Your task to perform on an android device: turn off notifications settings in the gmail app Image 0: 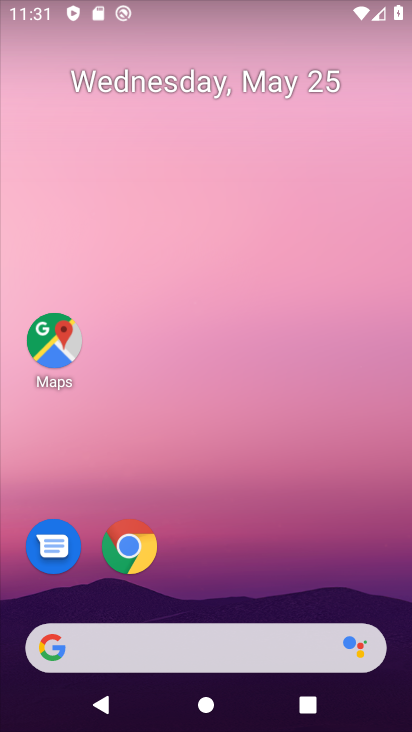
Step 0: drag from (212, 425) to (247, 9)
Your task to perform on an android device: turn off notifications settings in the gmail app Image 1: 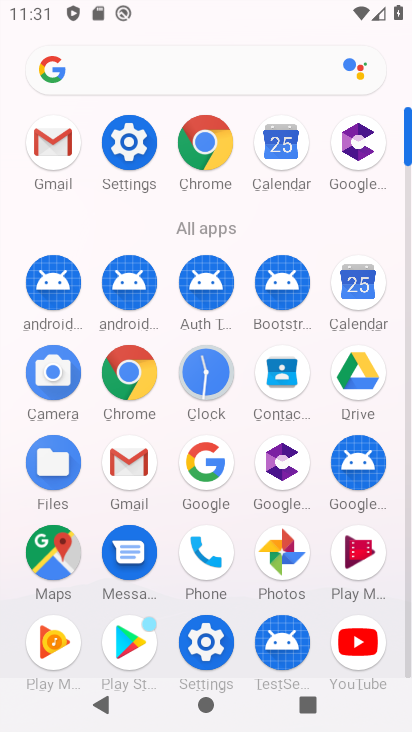
Step 1: click (126, 462)
Your task to perform on an android device: turn off notifications settings in the gmail app Image 2: 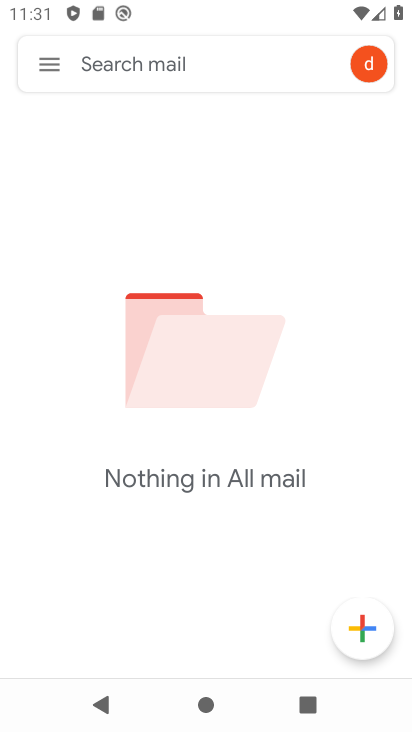
Step 2: click (50, 74)
Your task to perform on an android device: turn off notifications settings in the gmail app Image 3: 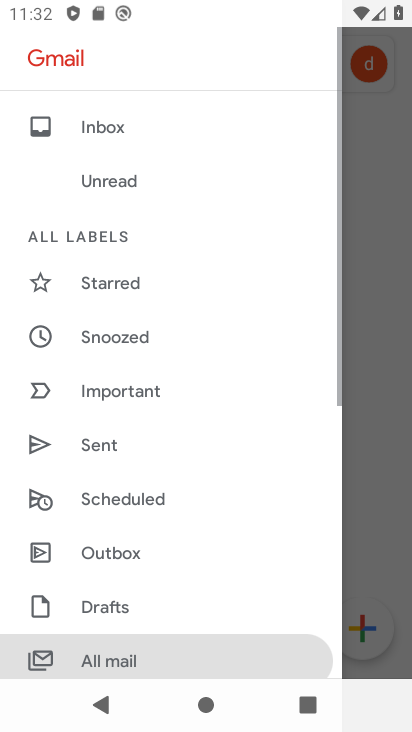
Step 3: drag from (118, 588) to (173, 145)
Your task to perform on an android device: turn off notifications settings in the gmail app Image 4: 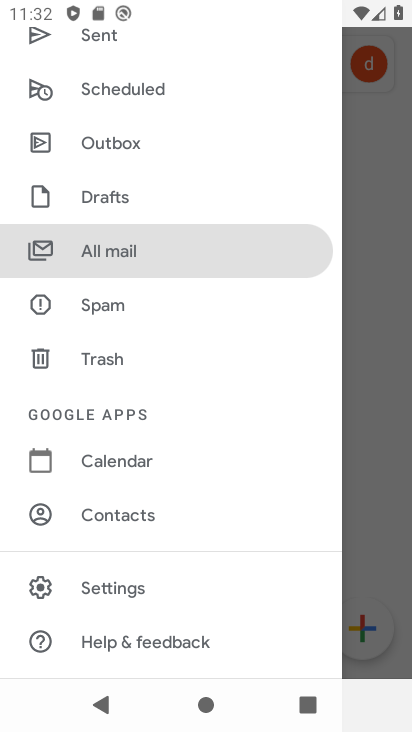
Step 4: click (116, 592)
Your task to perform on an android device: turn off notifications settings in the gmail app Image 5: 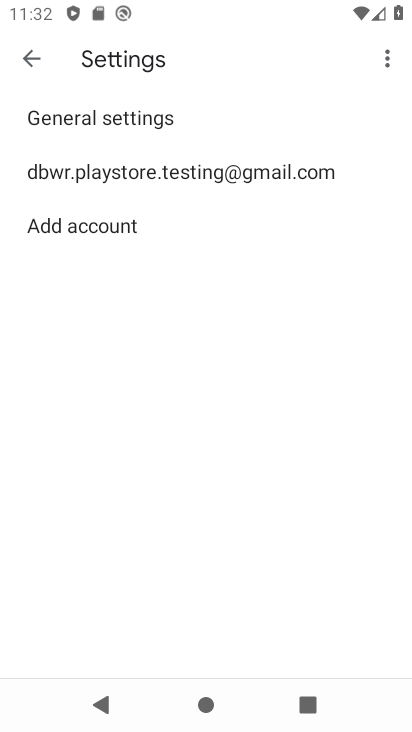
Step 5: click (279, 155)
Your task to perform on an android device: turn off notifications settings in the gmail app Image 6: 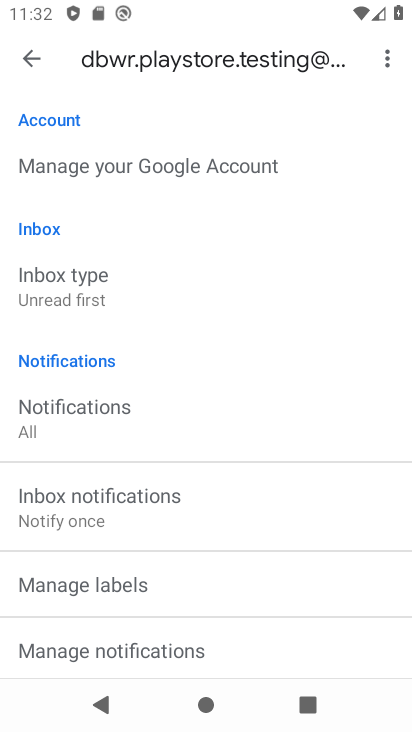
Step 6: click (97, 657)
Your task to perform on an android device: turn off notifications settings in the gmail app Image 7: 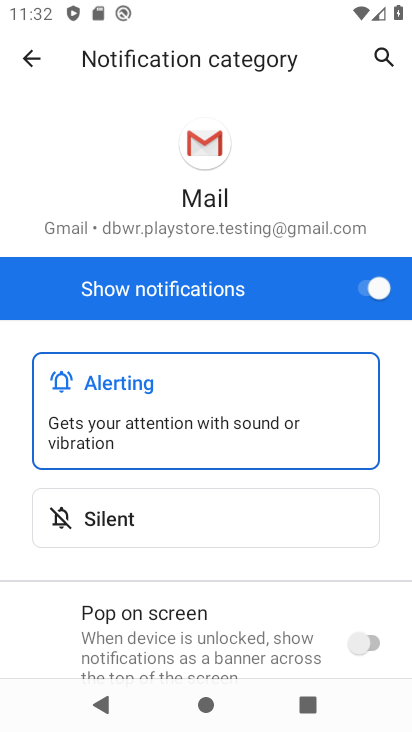
Step 7: click (374, 266)
Your task to perform on an android device: turn off notifications settings in the gmail app Image 8: 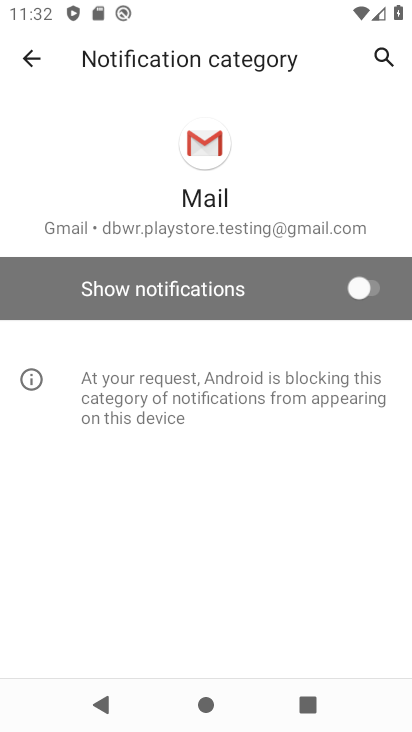
Step 8: task complete